Your task to perform on an android device: turn on wifi Image 0: 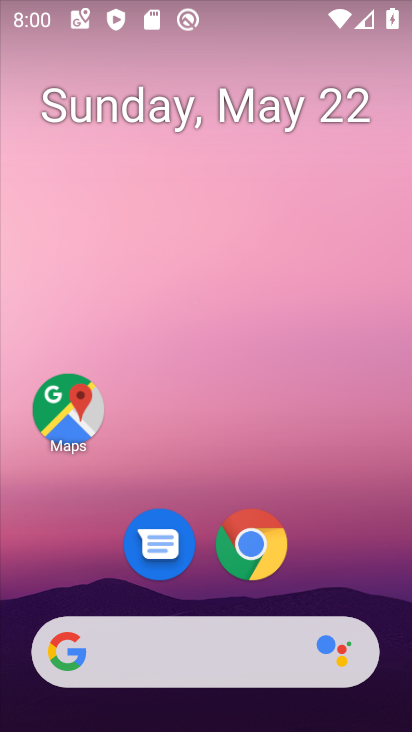
Step 0: drag from (391, 579) to (363, 141)
Your task to perform on an android device: turn on wifi Image 1: 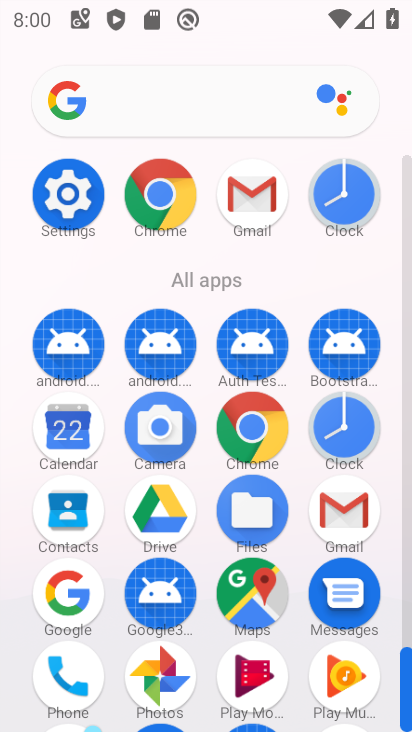
Step 1: click (60, 199)
Your task to perform on an android device: turn on wifi Image 2: 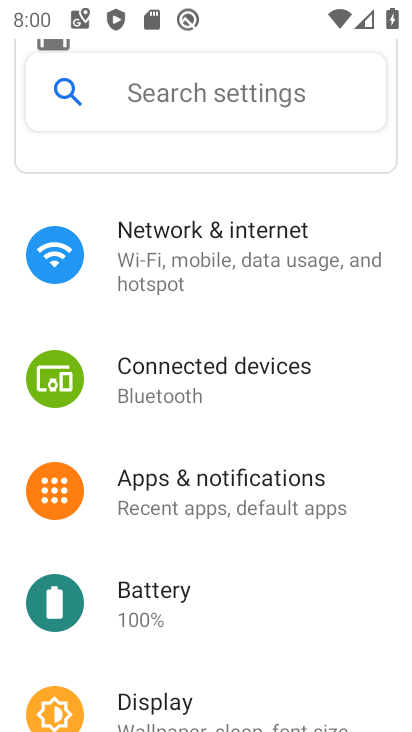
Step 2: drag from (175, 194) to (151, 415)
Your task to perform on an android device: turn on wifi Image 3: 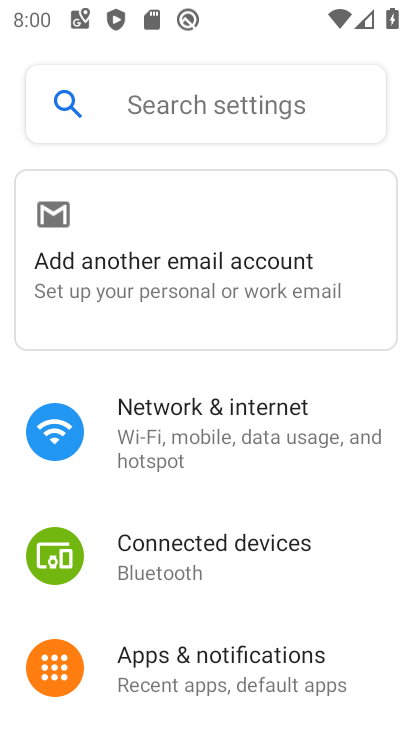
Step 3: click (183, 460)
Your task to perform on an android device: turn on wifi Image 4: 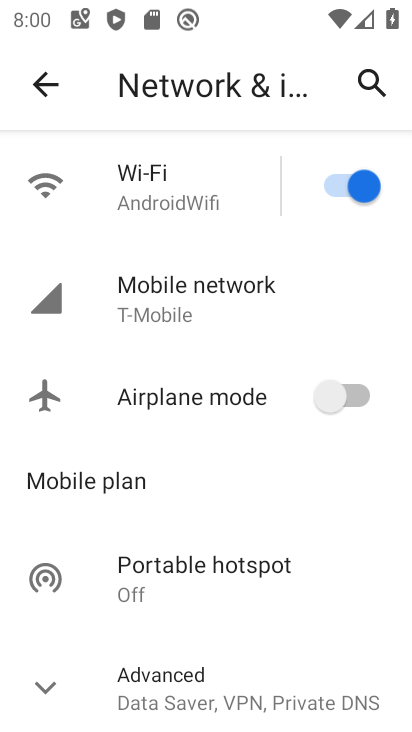
Step 4: task complete